Your task to perform on an android device: Open internet settings Image 0: 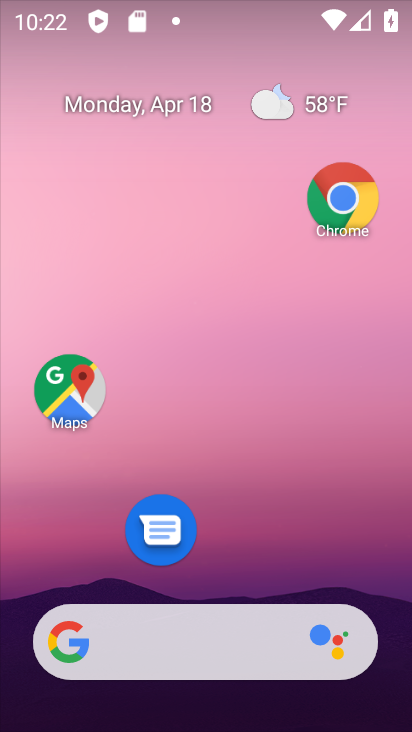
Step 0: drag from (188, 504) to (247, 175)
Your task to perform on an android device: Open internet settings Image 1: 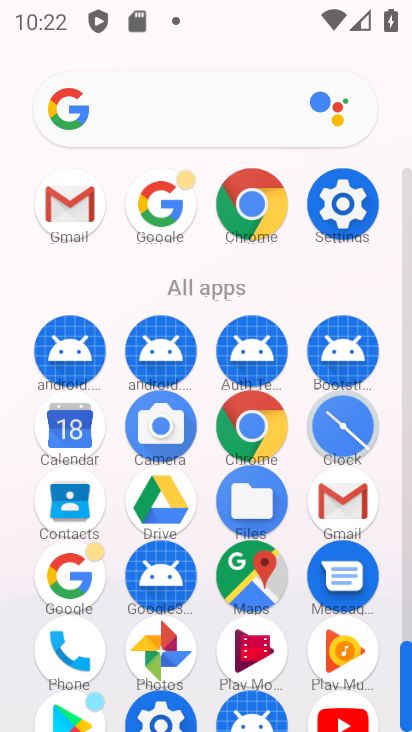
Step 1: click (345, 206)
Your task to perform on an android device: Open internet settings Image 2: 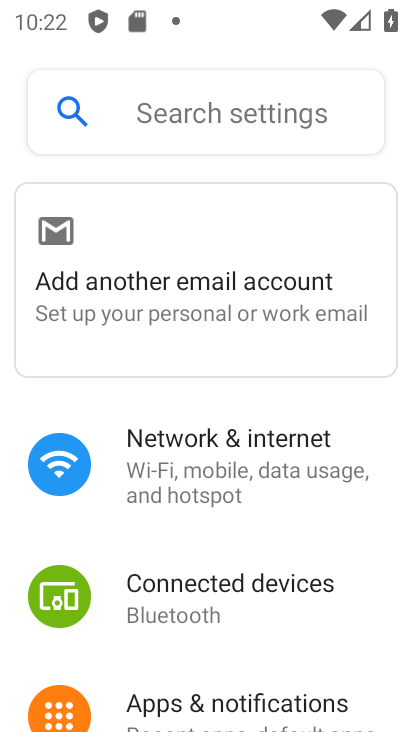
Step 2: drag from (280, 585) to (320, 265)
Your task to perform on an android device: Open internet settings Image 3: 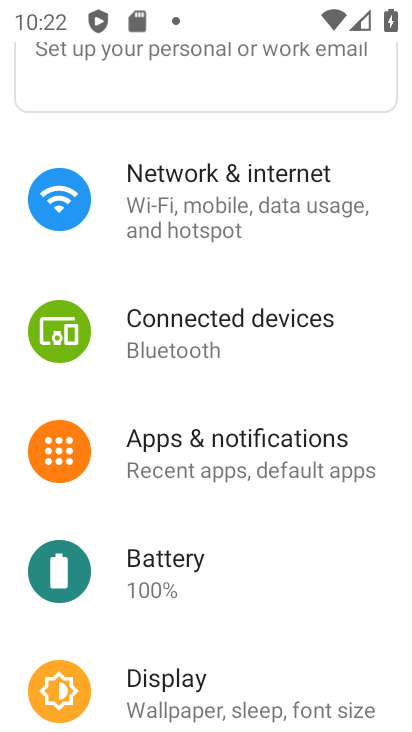
Step 3: click (240, 210)
Your task to perform on an android device: Open internet settings Image 4: 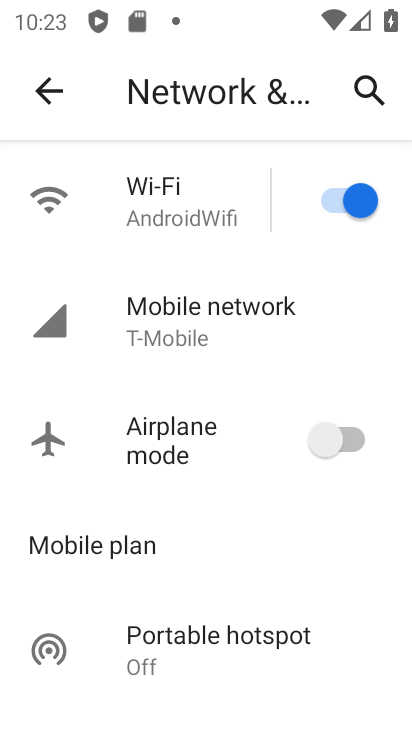
Step 4: task complete